Your task to perform on an android device: toggle javascript in the chrome app Image 0: 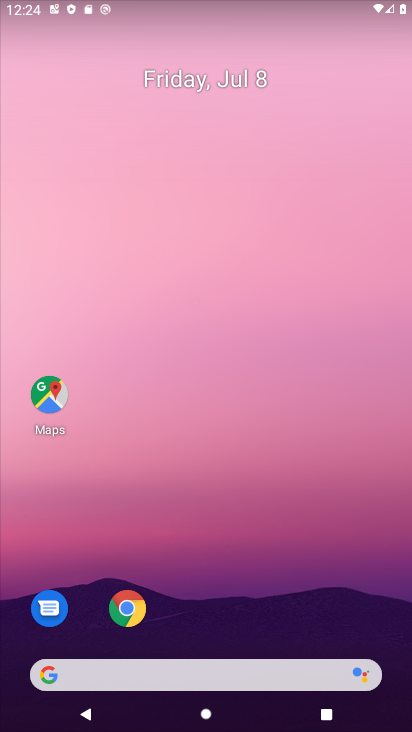
Step 0: click (217, 609)
Your task to perform on an android device: toggle javascript in the chrome app Image 1: 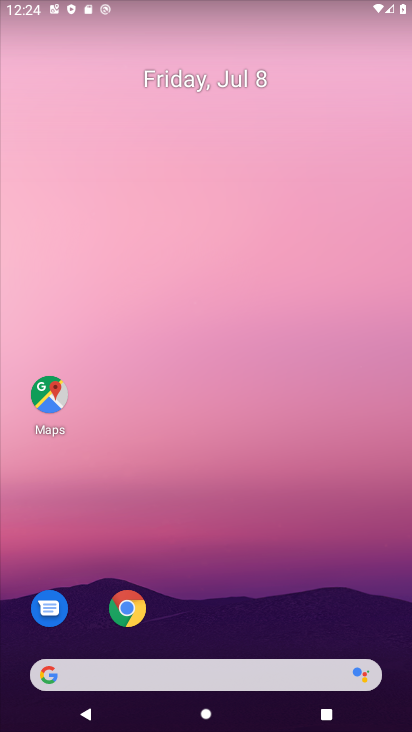
Step 1: click (120, 593)
Your task to perform on an android device: toggle javascript in the chrome app Image 2: 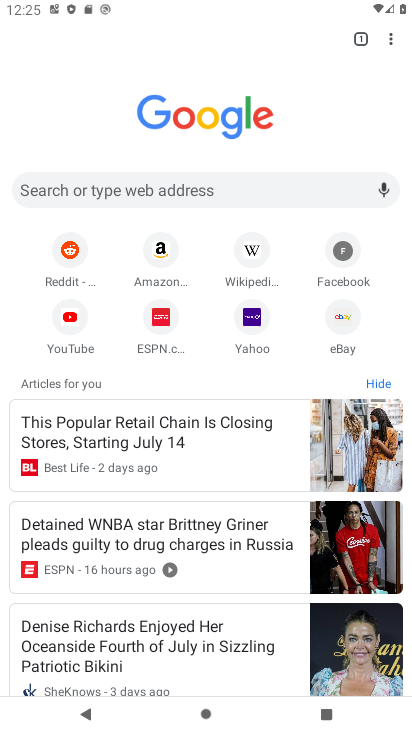
Step 2: click (395, 34)
Your task to perform on an android device: toggle javascript in the chrome app Image 3: 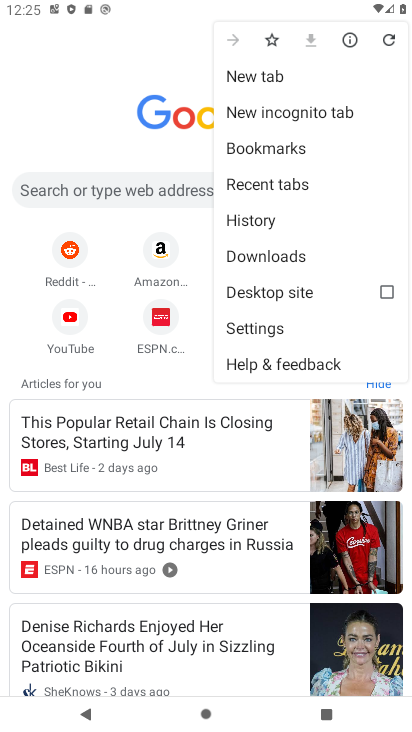
Step 3: click (306, 319)
Your task to perform on an android device: toggle javascript in the chrome app Image 4: 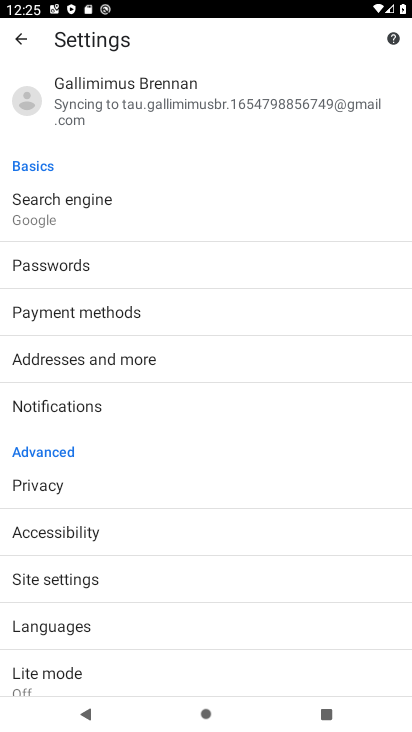
Step 4: drag from (138, 640) to (131, 527)
Your task to perform on an android device: toggle javascript in the chrome app Image 5: 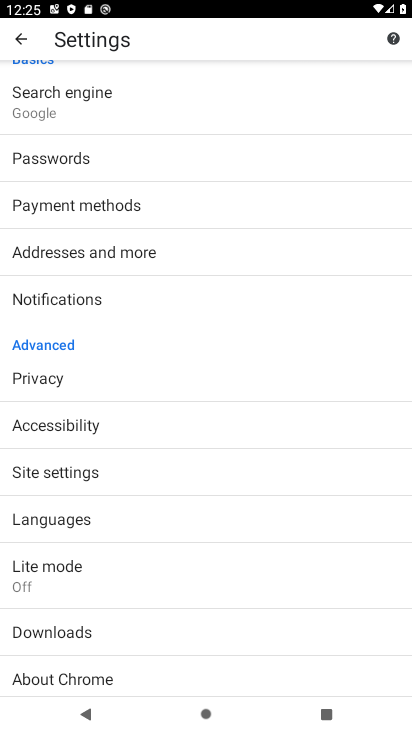
Step 5: click (86, 579)
Your task to perform on an android device: toggle javascript in the chrome app Image 6: 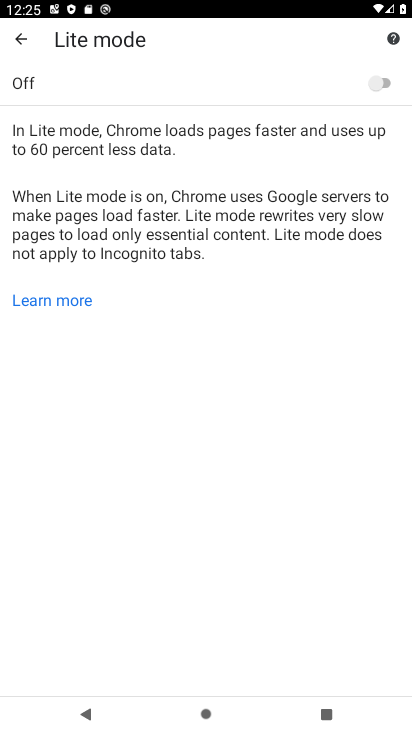
Step 6: click (16, 51)
Your task to perform on an android device: toggle javascript in the chrome app Image 7: 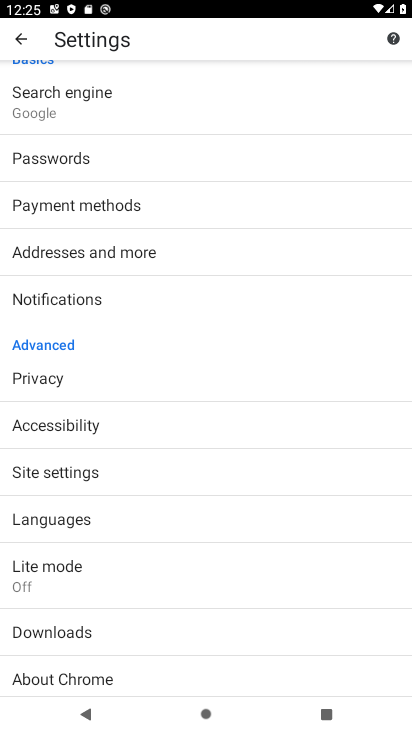
Step 7: click (126, 482)
Your task to perform on an android device: toggle javascript in the chrome app Image 8: 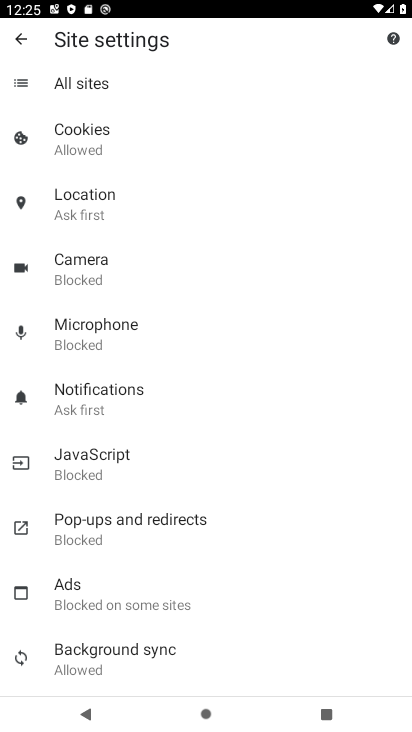
Step 8: click (127, 469)
Your task to perform on an android device: toggle javascript in the chrome app Image 9: 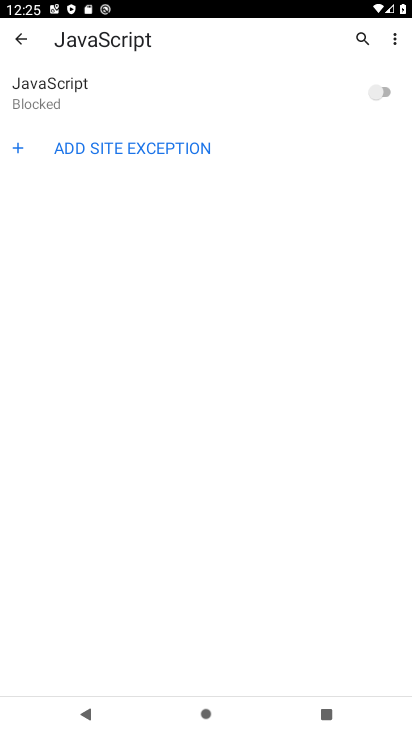
Step 9: click (352, 81)
Your task to perform on an android device: toggle javascript in the chrome app Image 10: 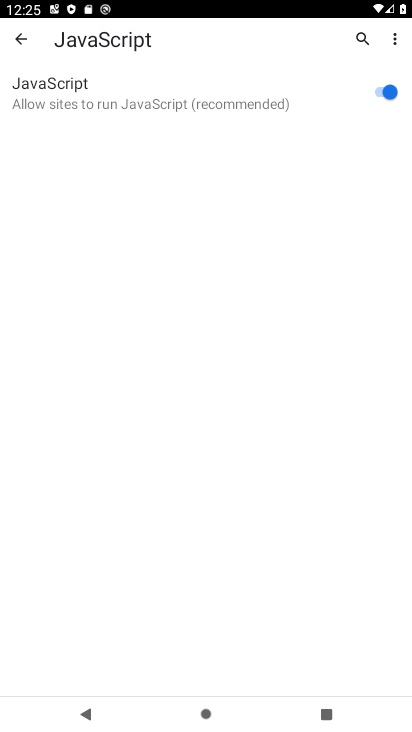
Step 10: task complete